Your task to perform on an android device: Go to notification settings Image 0: 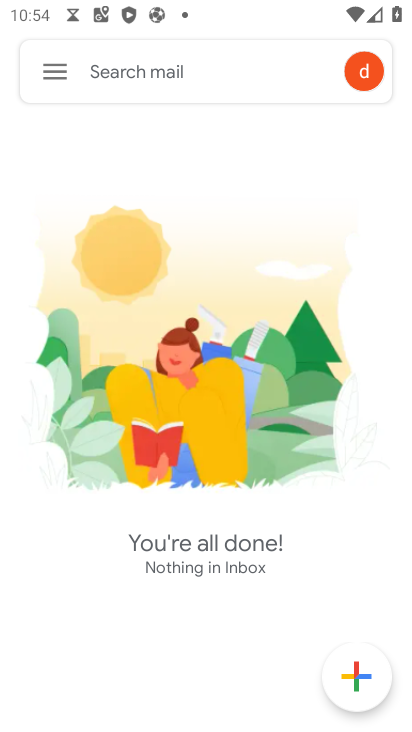
Step 0: press home button
Your task to perform on an android device: Go to notification settings Image 1: 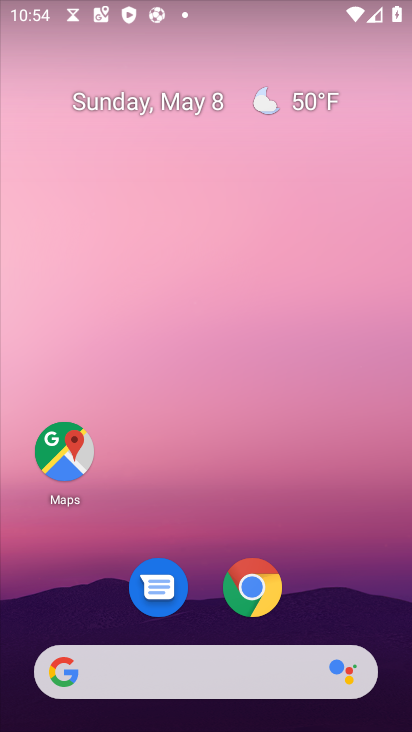
Step 1: drag from (334, 603) to (208, 122)
Your task to perform on an android device: Go to notification settings Image 2: 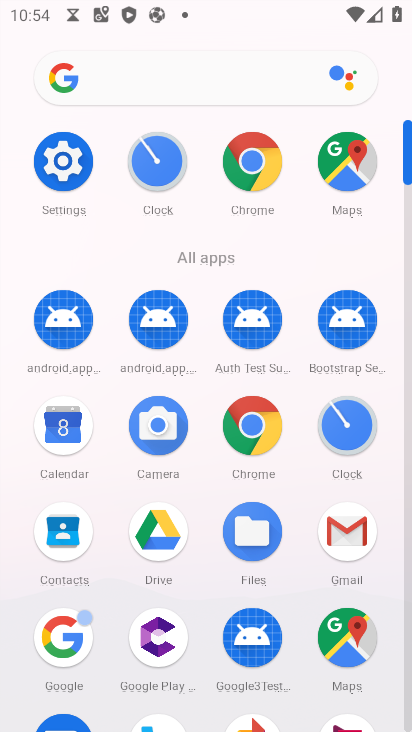
Step 2: click (58, 151)
Your task to perform on an android device: Go to notification settings Image 3: 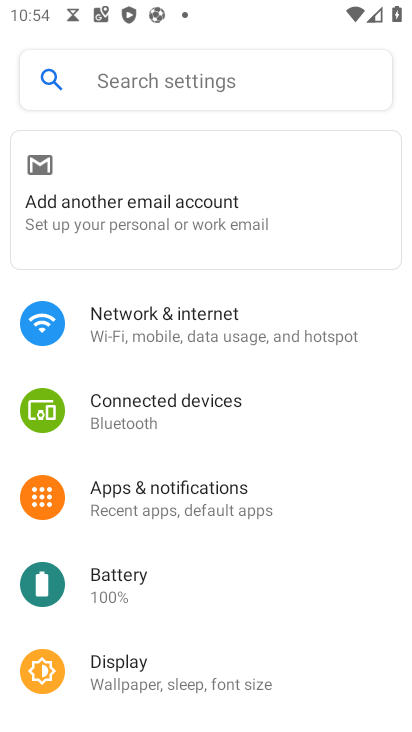
Step 3: click (208, 499)
Your task to perform on an android device: Go to notification settings Image 4: 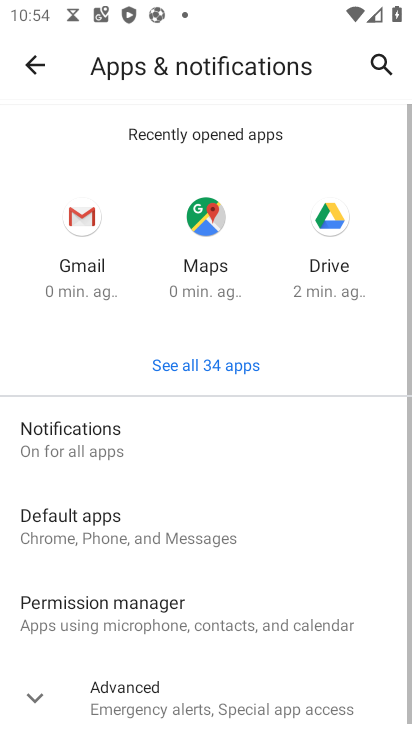
Step 4: click (78, 436)
Your task to perform on an android device: Go to notification settings Image 5: 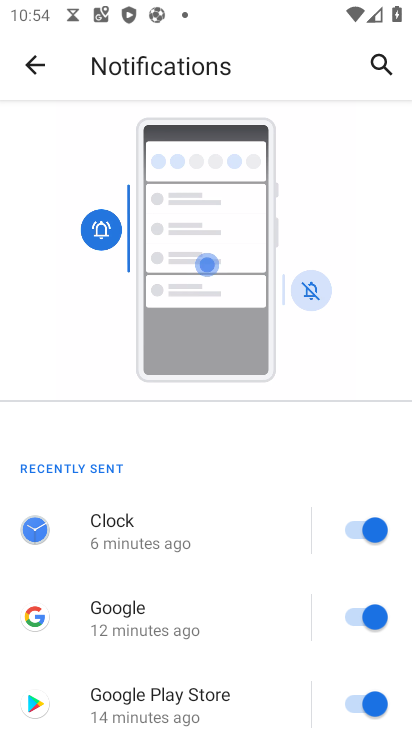
Step 5: task complete